Your task to perform on an android device: change notification settings in the gmail app Image 0: 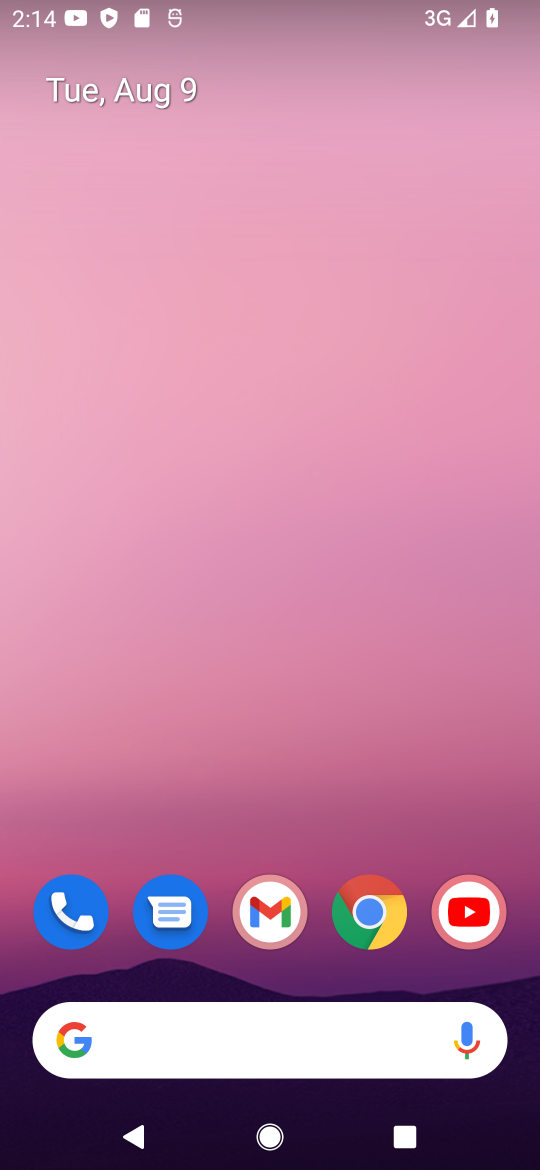
Step 0: click (270, 894)
Your task to perform on an android device: change notification settings in the gmail app Image 1: 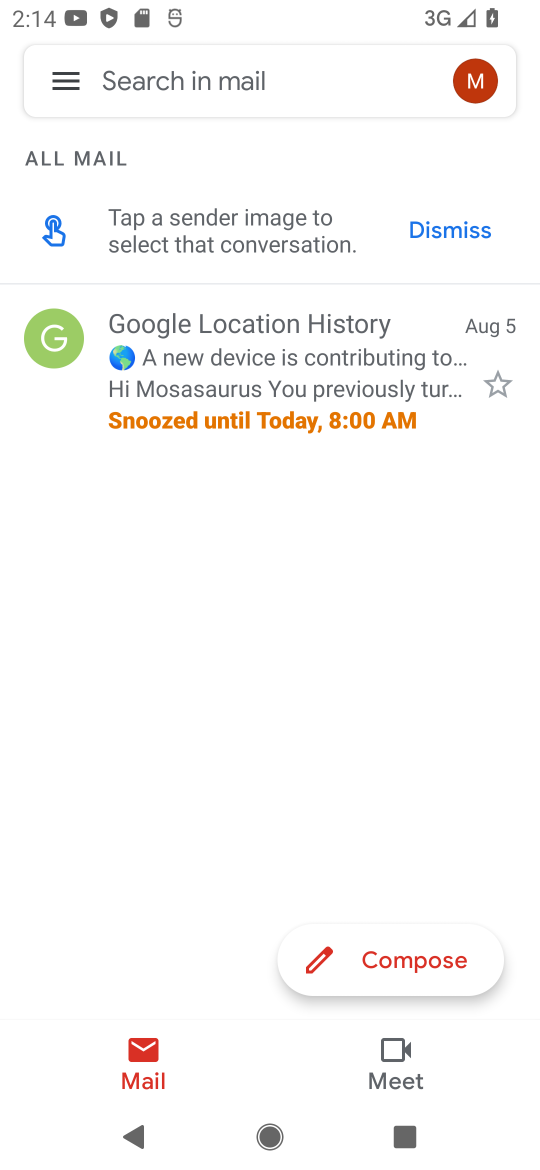
Step 1: click (66, 94)
Your task to perform on an android device: change notification settings in the gmail app Image 2: 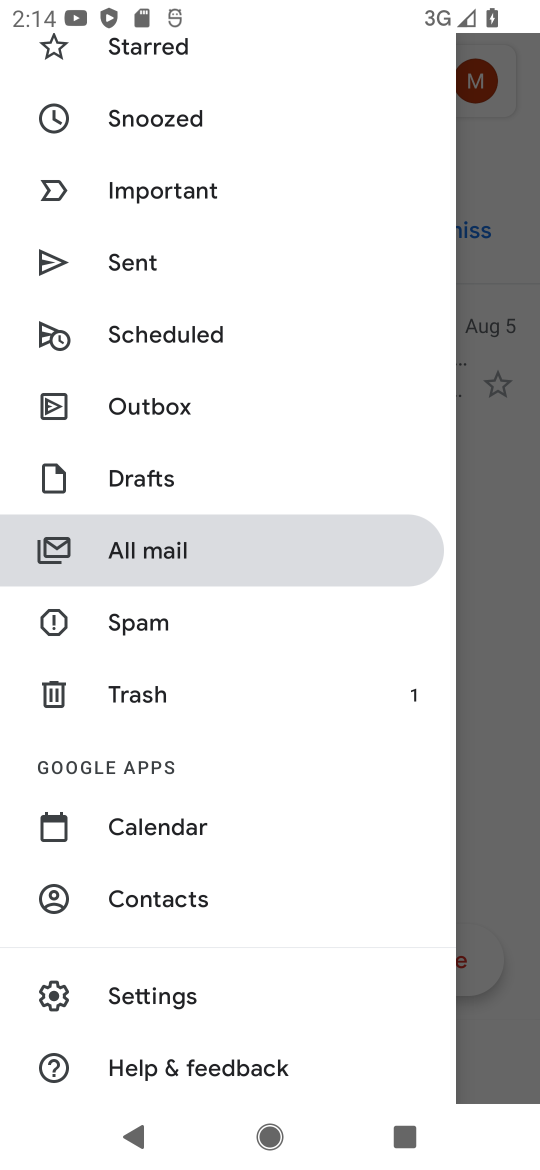
Step 2: click (178, 990)
Your task to perform on an android device: change notification settings in the gmail app Image 3: 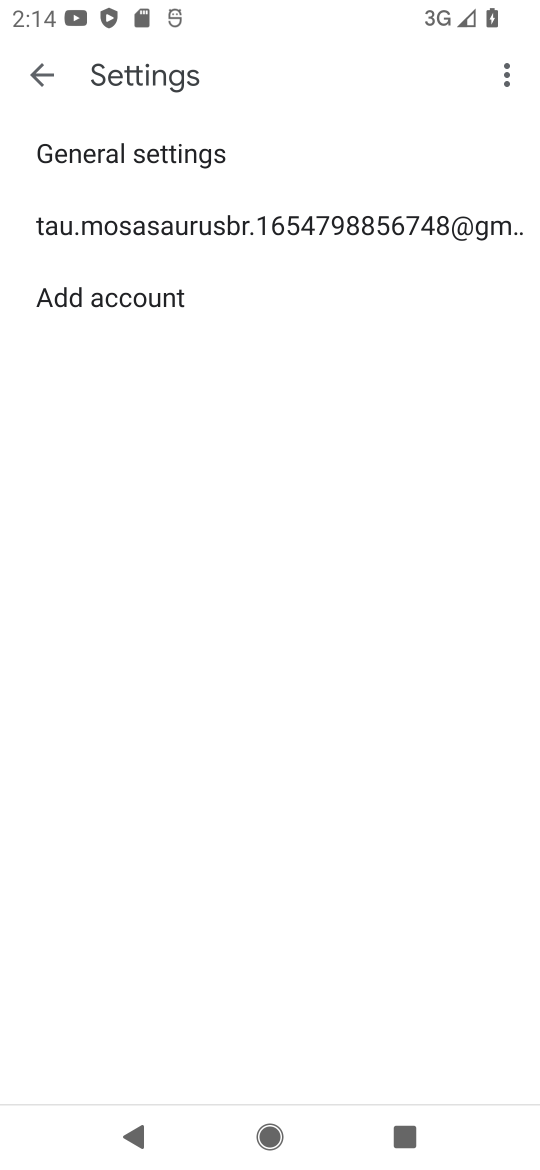
Step 3: click (134, 155)
Your task to perform on an android device: change notification settings in the gmail app Image 4: 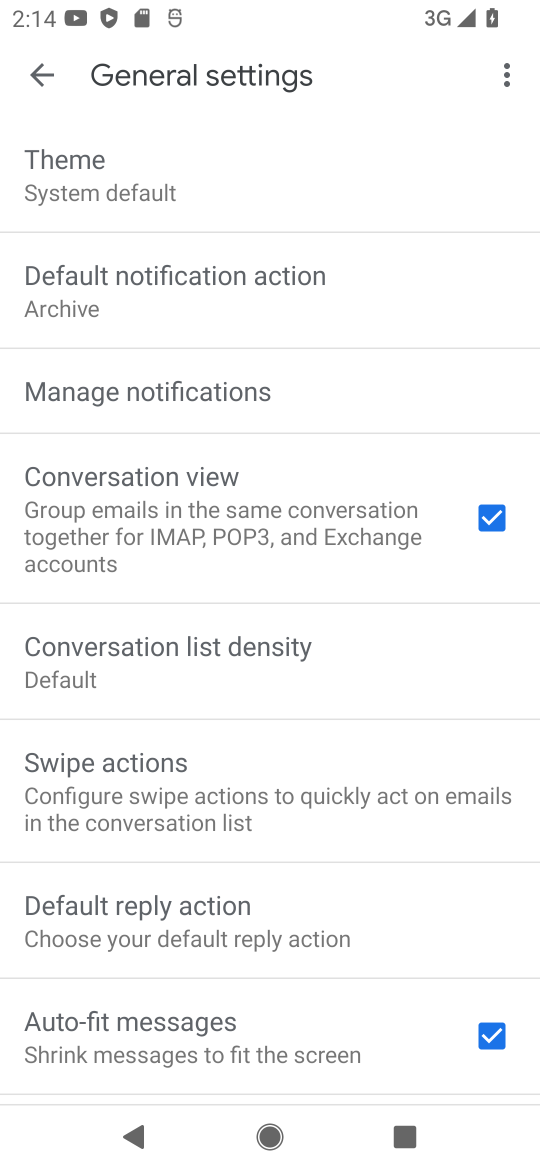
Step 4: click (156, 395)
Your task to perform on an android device: change notification settings in the gmail app Image 5: 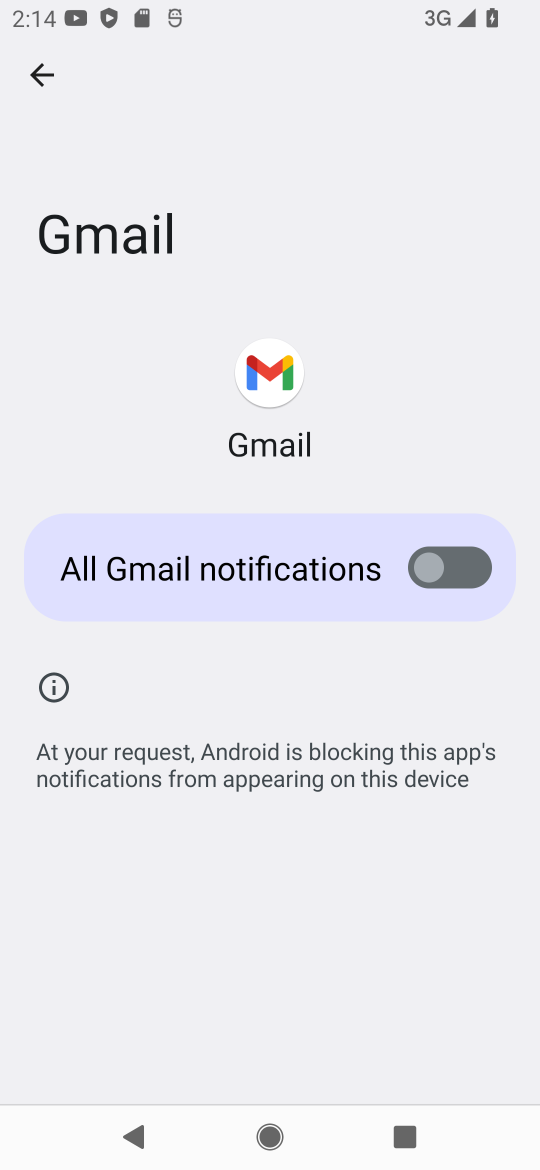
Step 5: click (421, 563)
Your task to perform on an android device: change notification settings in the gmail app Image 6: 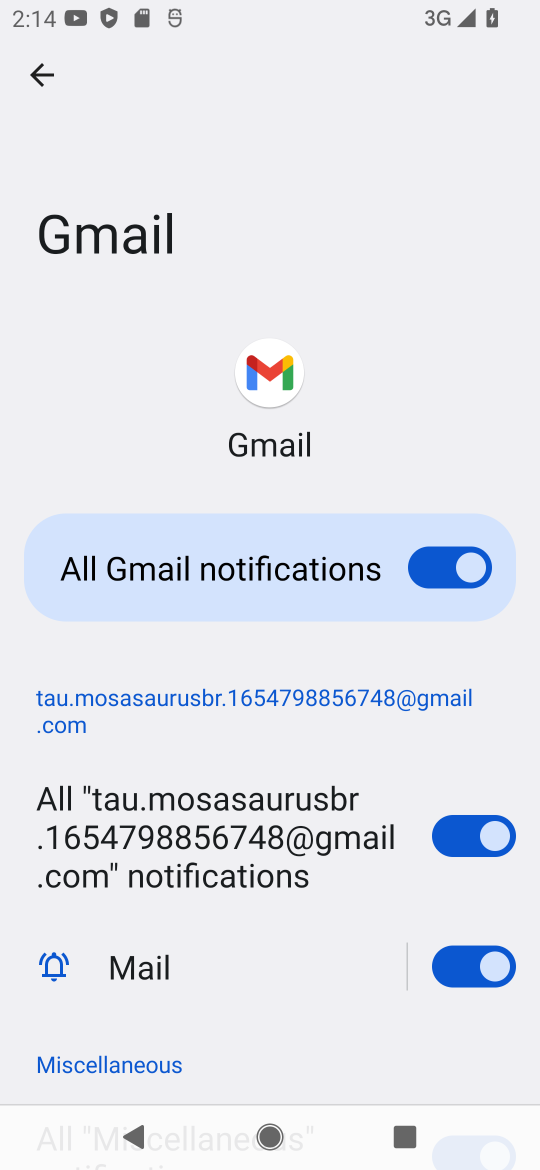
Step 6: task complete